Your task to perform on an android device: turn pop-ups off in chrome Image 0: 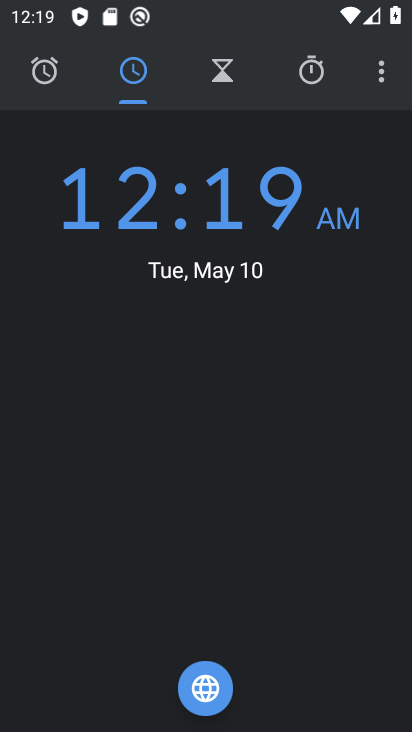
Step 0: press home button
Your task to perform on an android device: turn pop-ups off in chrome Image 1: 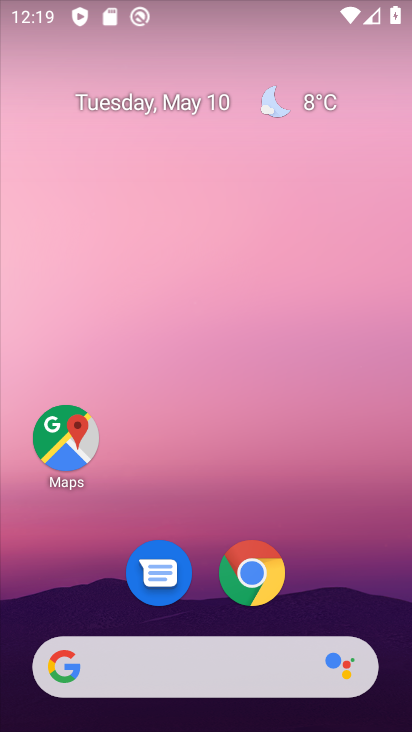
Step 1: click (248, 573)
Your task to perform on an android device: turn pop-ups off in chrome Image 2: 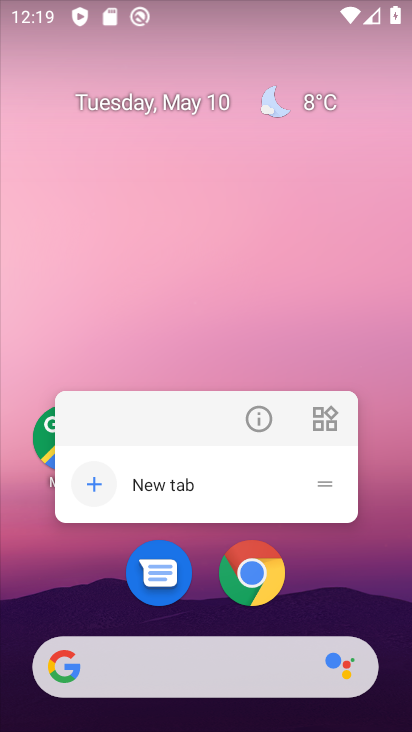
Step 2: click (247, 571)
Your task to perform on an android device: turn pop-ups off in chrome Image 3: 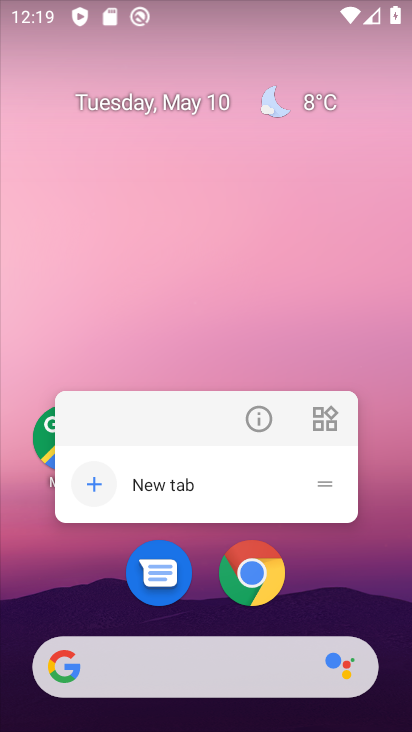
Step 3: click (268, 423)
Your task to perform on an android device: turn pop-ups off in chrome Image 4: 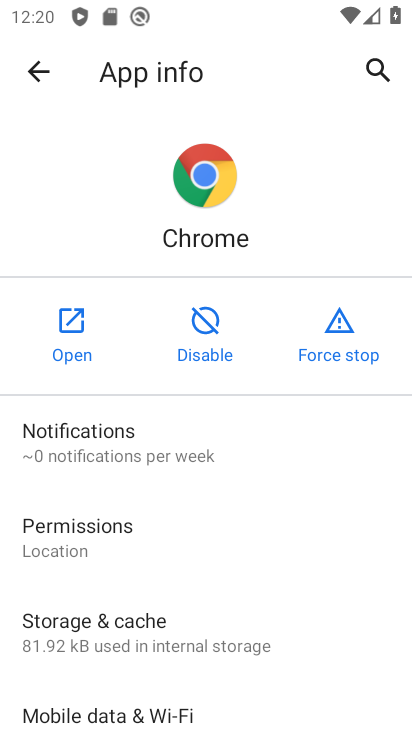
Step 4: click (79, 339)
Your task to perform on an android device: turn pop-ups off in chrome Image 5: 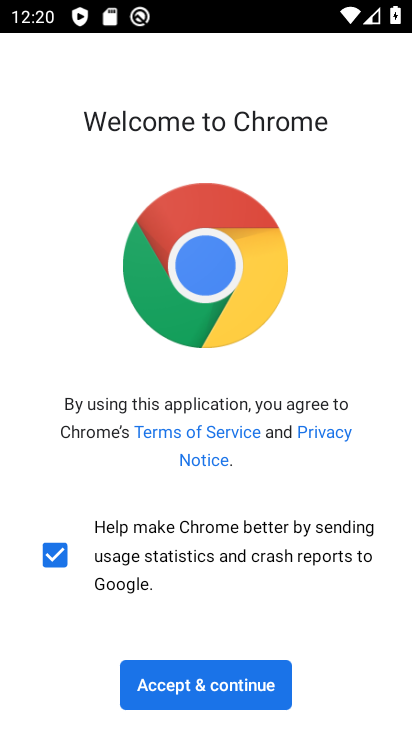
Step 5: click (223, 693)
Your task to perform on an android device: turn pop-ups off in chrome Image 6: 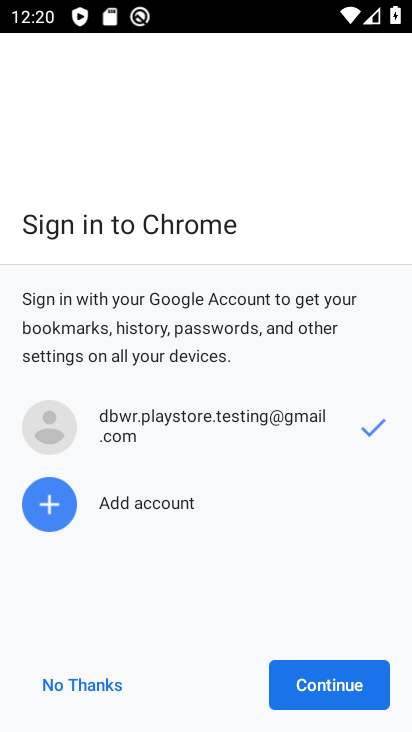
Step 6: click (325, 685)
Your task to perform on an android device: turn pop-ups off in chrome Image 7: 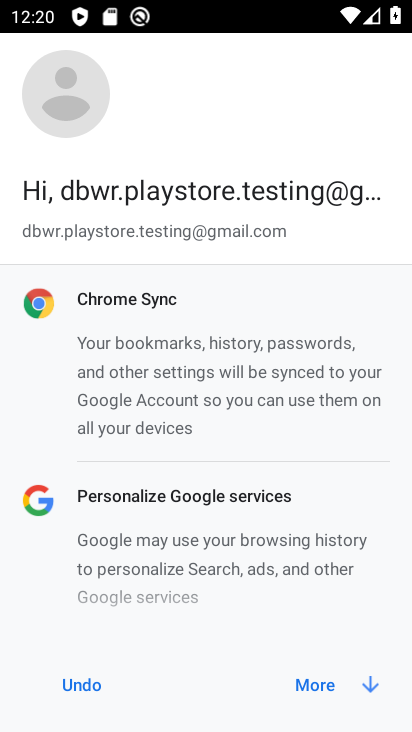
Step 7: click (317, 688)
Your task to perform on an android device: turn pop-ups off in chrome Image 8: 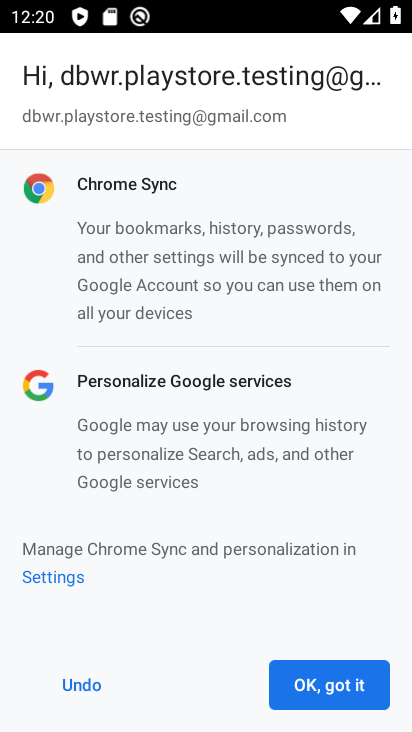
Step 8: click (317, 689)
Your task to perform on an android device: turn pop-ups off in chrome Image 9: 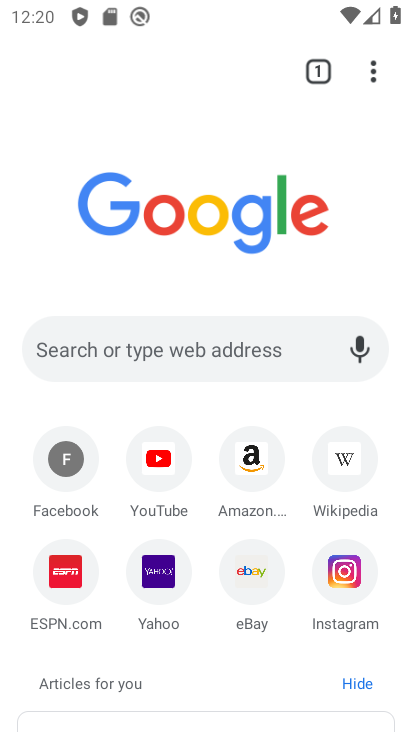
Step 9: click (382, 81)
Your task to perform on an android device: turn pop-ups off in chrome Image 10: 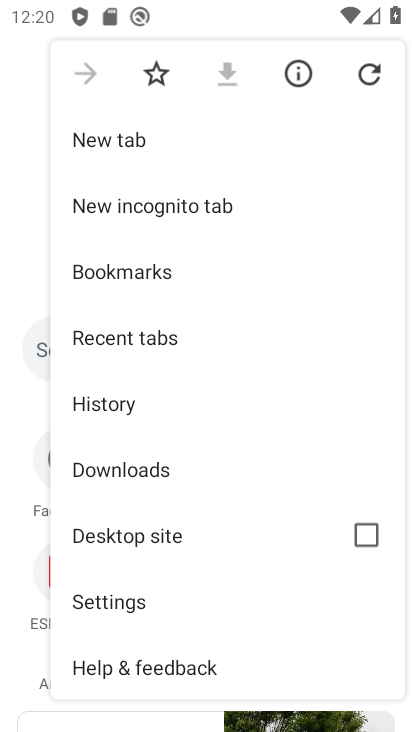
Step 10: click (133, 611)
Your task to perform on an android device: turn pop-ups off in chrome Image 11: 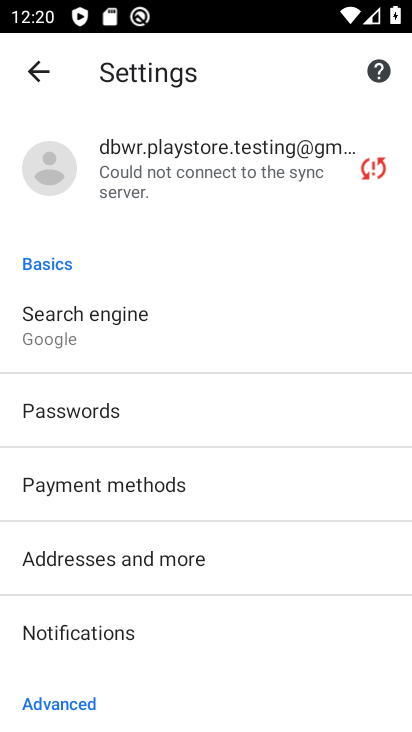
Step 11: drag from (139, 613) to (172, 266)
Your task to perform on an android device: turn pop-ups off in chrome Image 12: 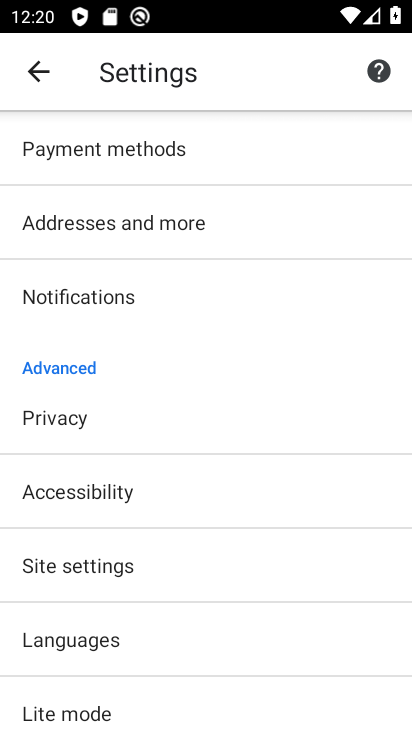
Step 12: click (98, 575)
Your task to perform on an android device: turn pop-ups off in chrome Image 13: 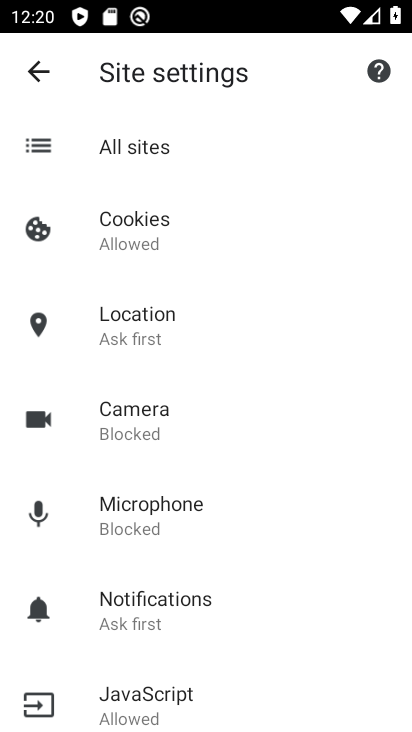
Step 13: drag from (161, 633) to (213, 265)
Your task to perform on an android device: turn pop-ups off in chrome Image 14: 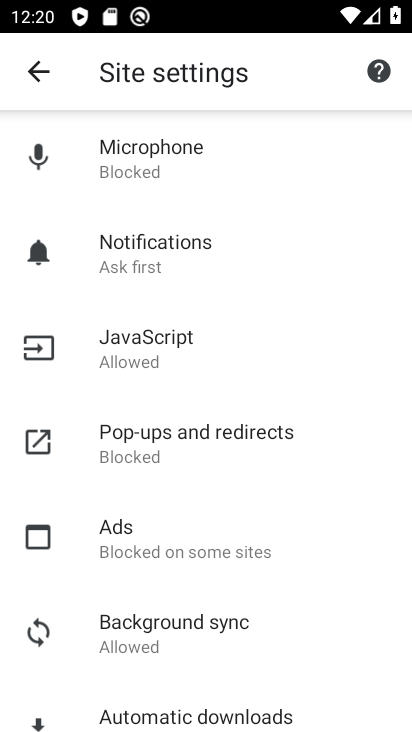
Step 14: click (149, 451)
Your task to perform on an android device: turn pop-ups off in chrome Image 15: 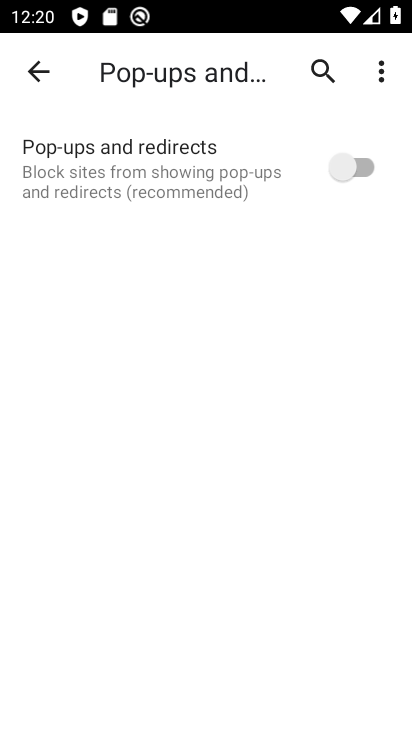
Step 15: task complete